Your task to perform on an android device: open chrome and create a bookmark for the current page Image 0: 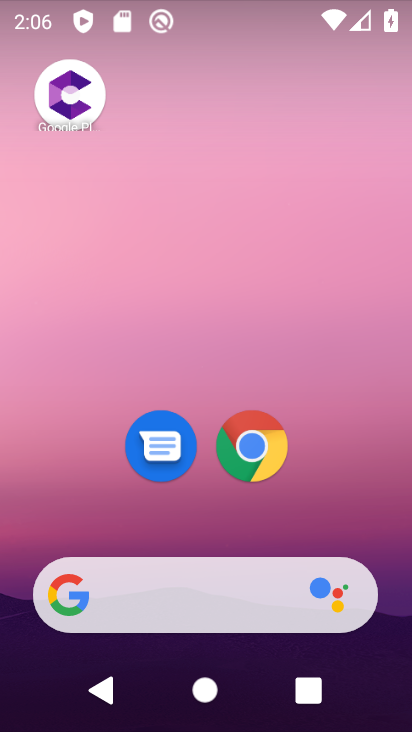
Step 0: click (254, 453)
Your task to perform on an android device: open chrome and create a bookmark for the current page Image 1: 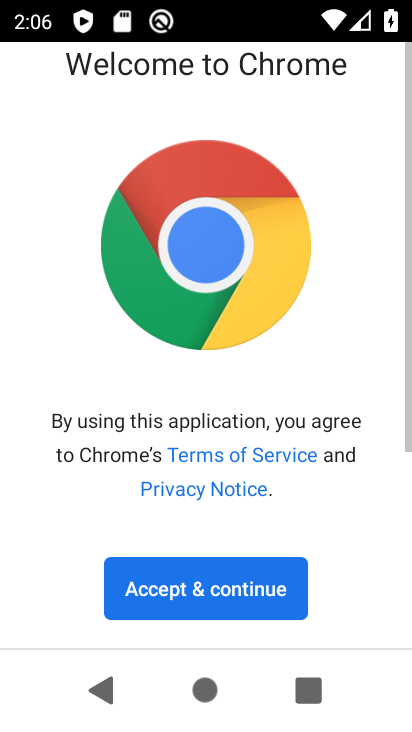
Step 1: click (224, 582)
Your task to perform on an android device: open chrome and create a bookmark for the current page Image 2: 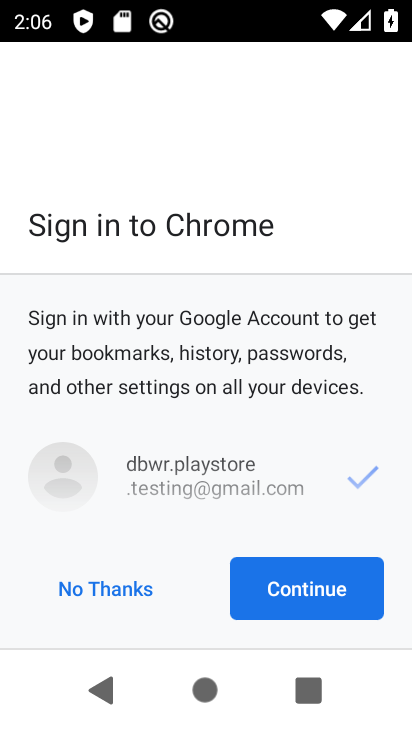
Step 2: click (303, 580)
Your task to perform on an android device: open chrome and create a bookmark for the current page Image 3: 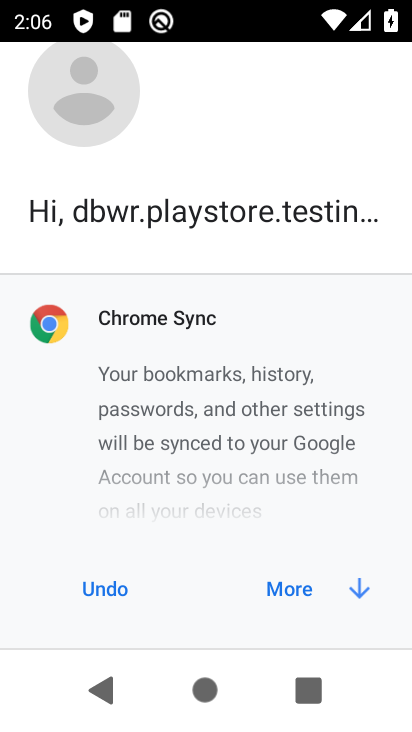
Step 3: click (267, 591)
Your task to perform on an android device: open chrome and create a bookmark for the current page Image 4: 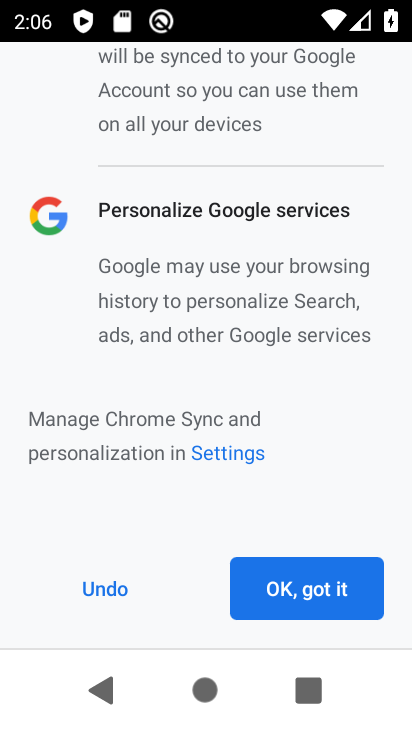
Step 4: click (266, 592)
Your task to perform on an android device: open chrome and create a bookmark for the current page Image 5: 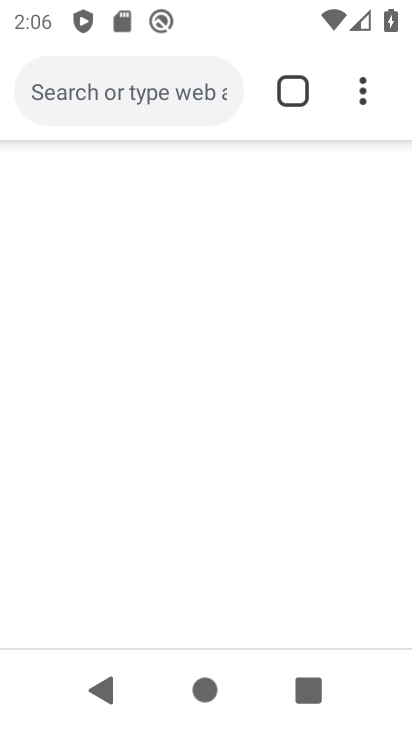
Step 5: task complete